Your task to perform on an android device: turn off wifi Image 0: 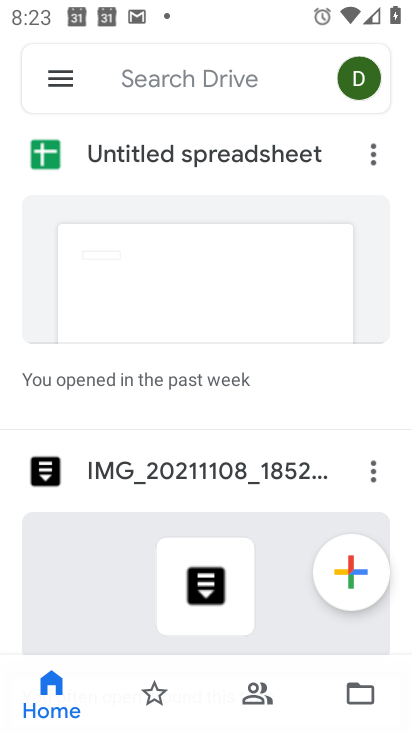
Step 0: press home button
Your task to perform on an android device: turn off wifi Image 1: 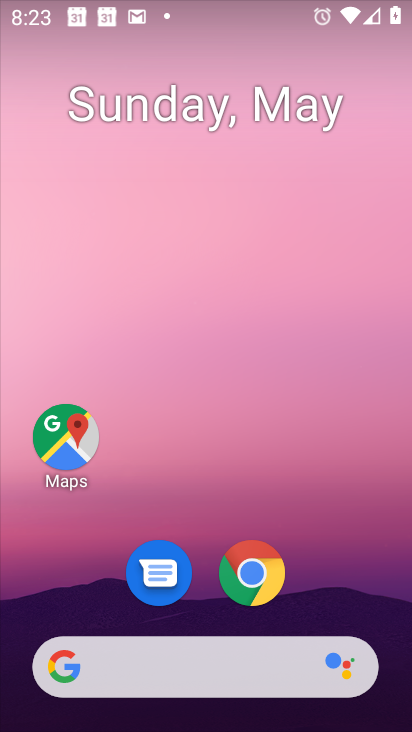
Step 1: drag from (236, 483) to (239, 3)
Your task to perform on an android device: turn off wifi Image 2: 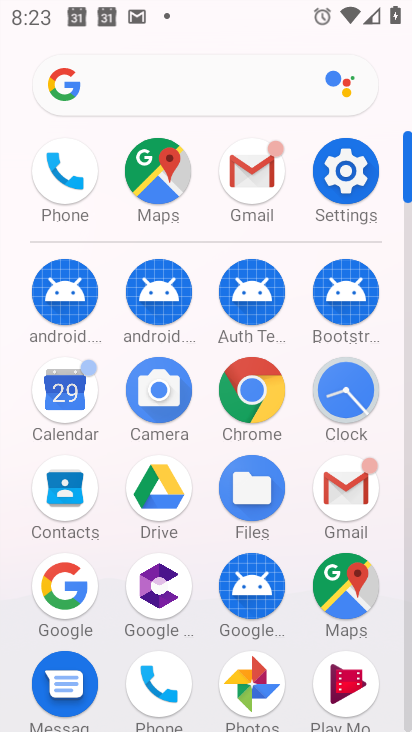
Step 2: click (341, 162)
Your task to perform on an android device: turn off wifi Image 3: 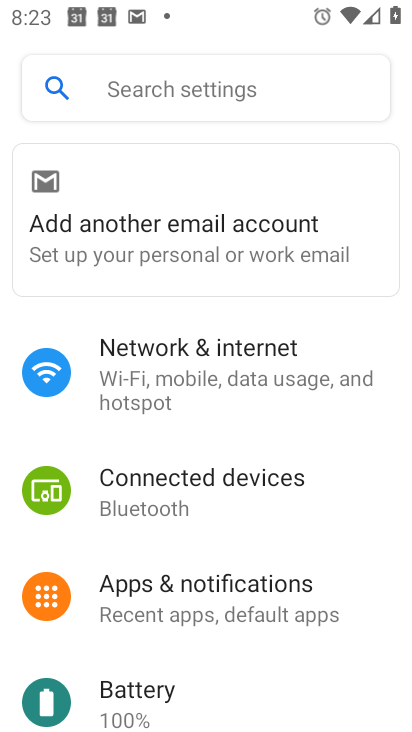
Step 3: click (298, 358)
Your task to perform on an android device: turn off wifi Image 4: 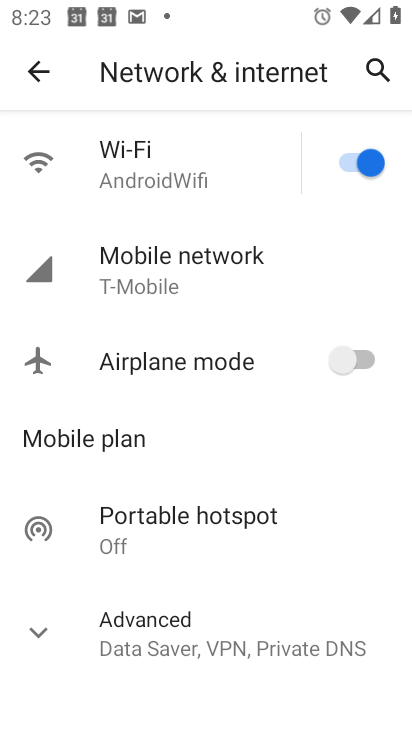
Step 4: click (354, 158)
Your task to perform on an android device: turn off wifi Image 5: 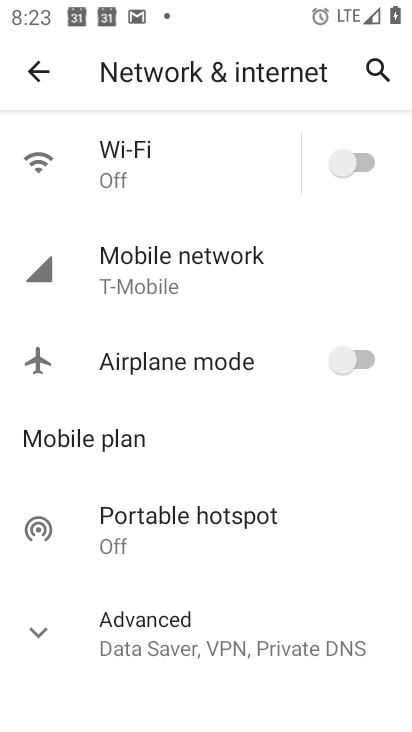
Step 5: task complete